Your task to perform on an android device: Open display settings Image 0: 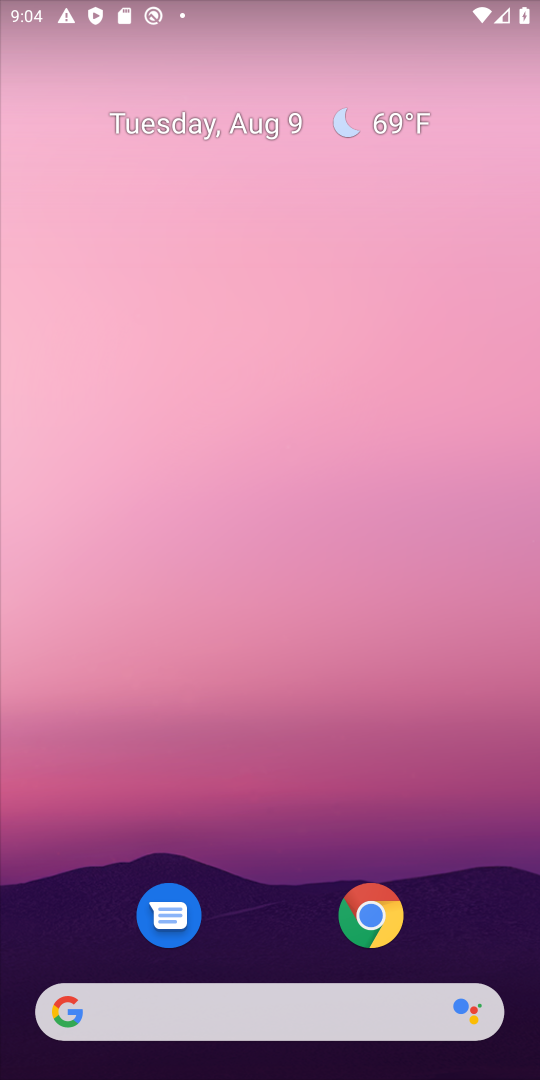
Step 0: drag from (269, 930) to (328, 14)
Your task to perform on an android device: Open display settings Image 1: 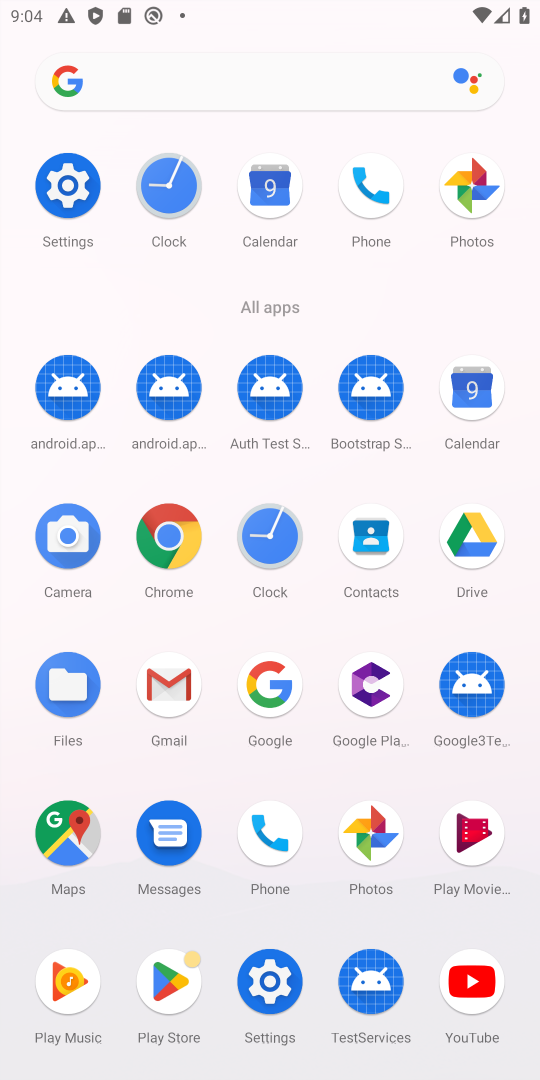
Step 1: click (50, 194)
Your task to perform on an android device: Open display settings Image 2: 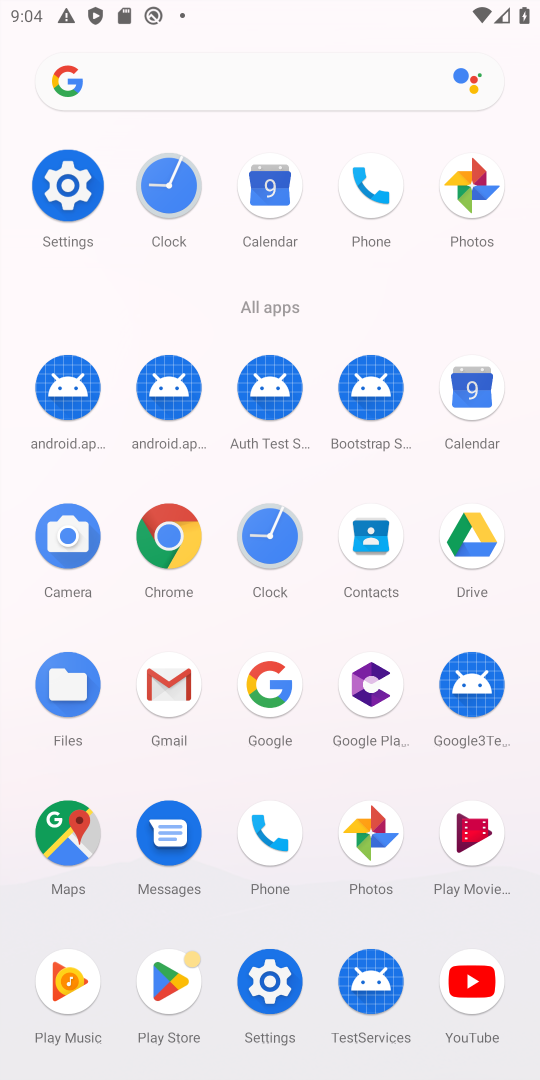
Step 2: click (50, 194)
Your task to perform on an android device: Open display settings Image 3: 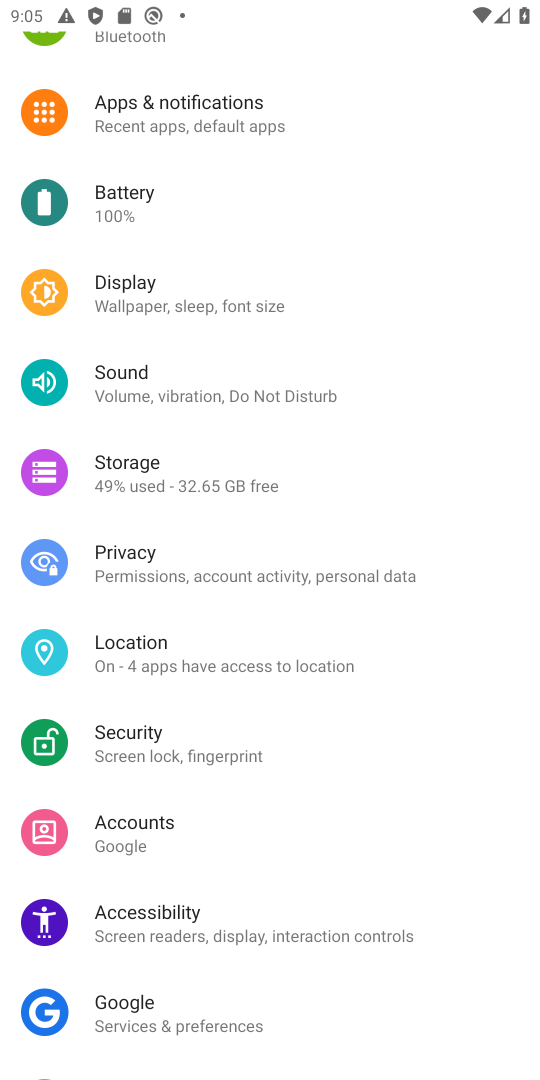
Step 3: click (159, 282)
Your task to perform on an android device: Open display settings Image 4: 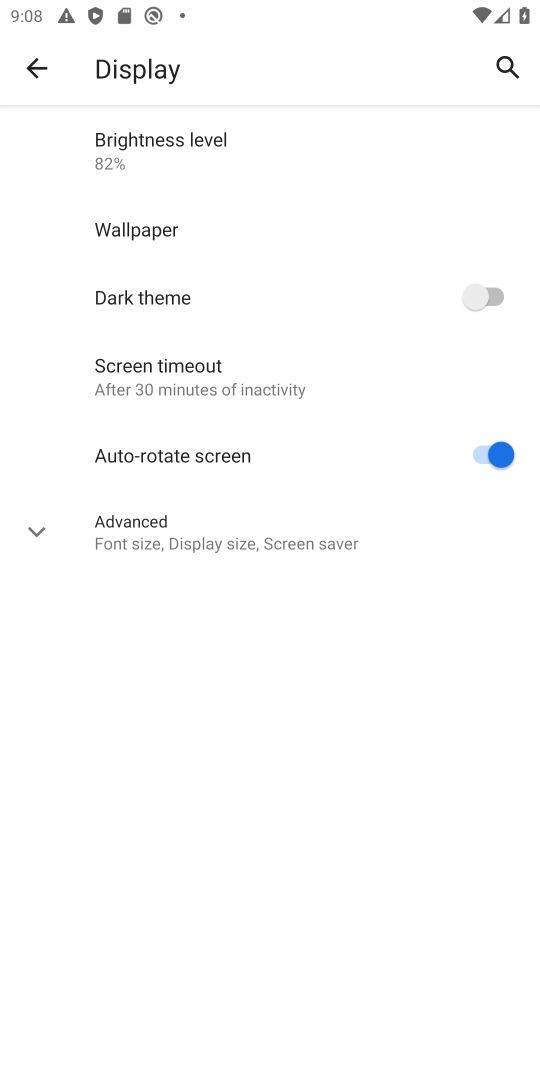
Step 4: task complete